Your task to perform on an android device: open chrome privacy settings Image 0: 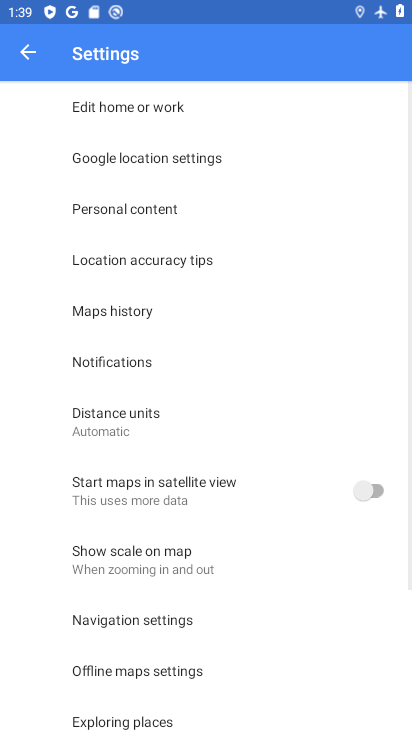
Step 0: press home button
Your task to perform on an android device: open chrome privacy settings Image 1: 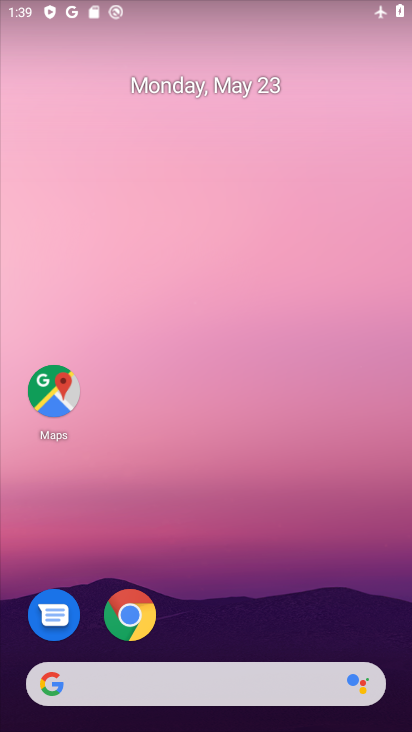
Step 1: click (148, 630)
Your task to perform on an android device: open chrome privacy settings Image 2: 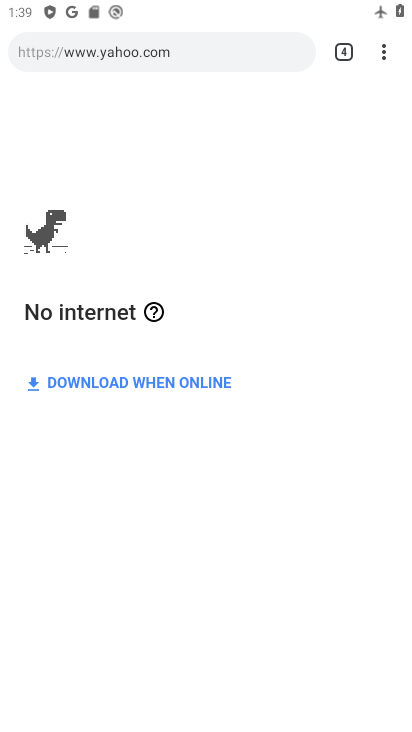
Step 2: click (388, 43)
Your task to perform on an android device: open chrome privacy settings Image 3: 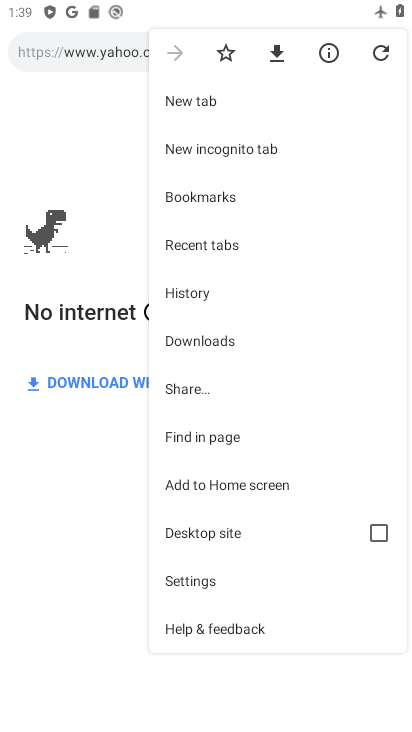
Step 3: click (214, 581)
Your task to perform on an android device: open chrome privacy settings Image 4: 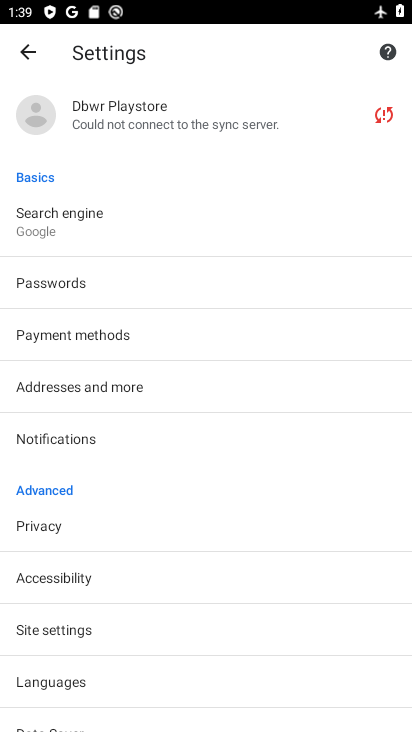
Step 4: click (38, 534)
Your task to perform on an android device: open chrome privacy settings Image 5: 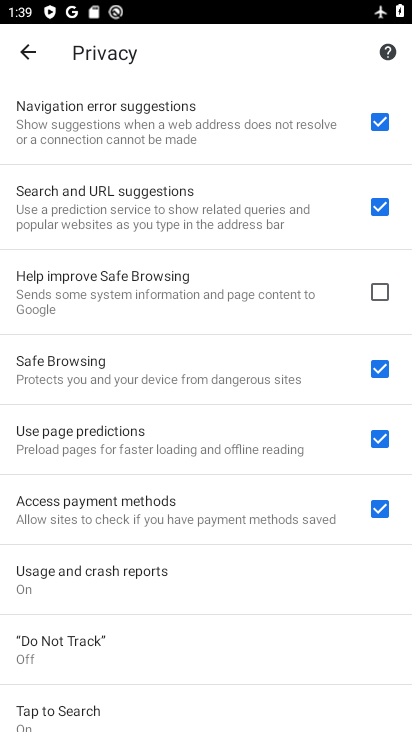
Step 5: task complete